Your task to perform on an android device: turn off data saver in the chrome app Image 0: 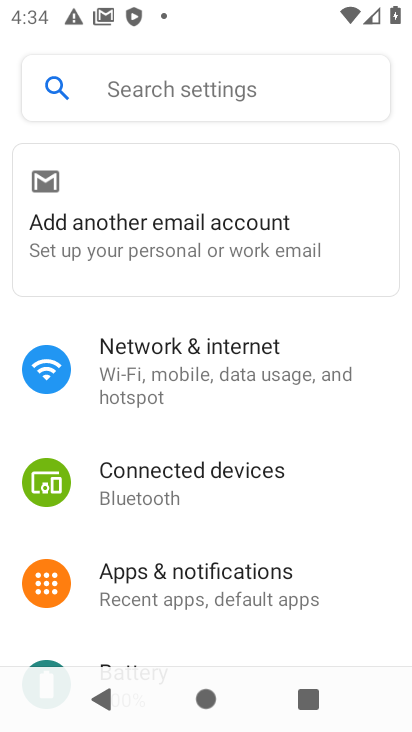
Step 0: press home button
Your task to perform on an android device: turn off data saver in the chrome app Image 1: 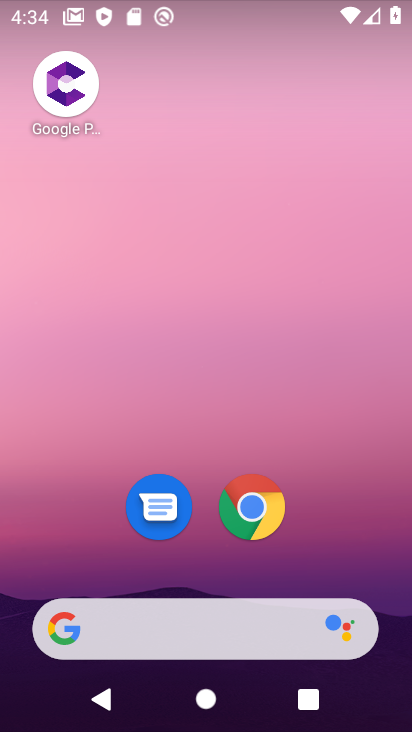
Step 1: click (256, 526)
Your task to perform on an android device: turn off data saver in the chrome app Image 2: 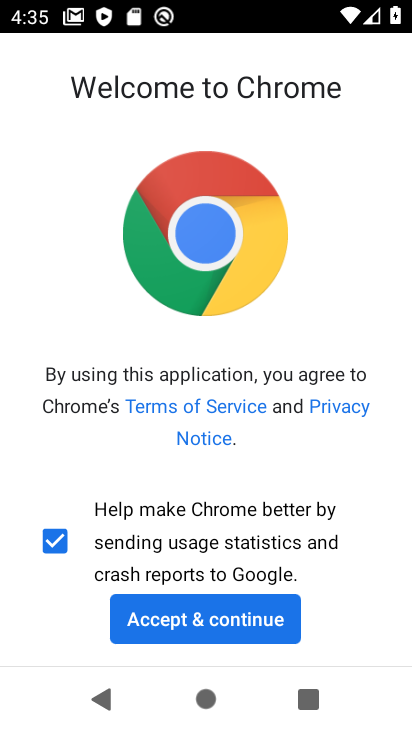
Step 2: click (197, 614)
Your task to perform on an android device: turn off data saver in the chrome app Image 3: 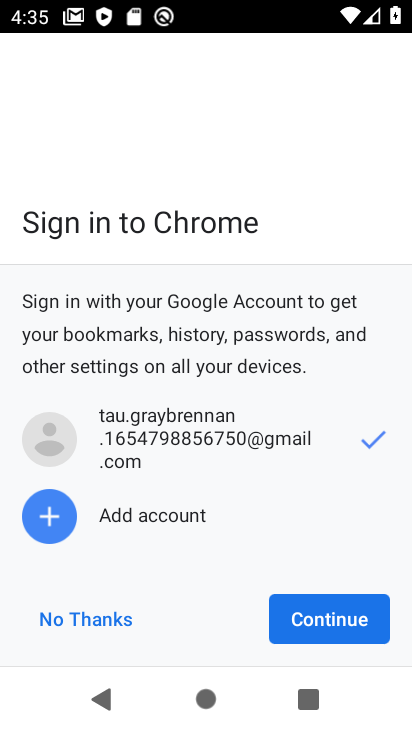
Step 3: click (323, 618)
Your task to perform on an android device: turn off data saver in the chrome app Image 4: 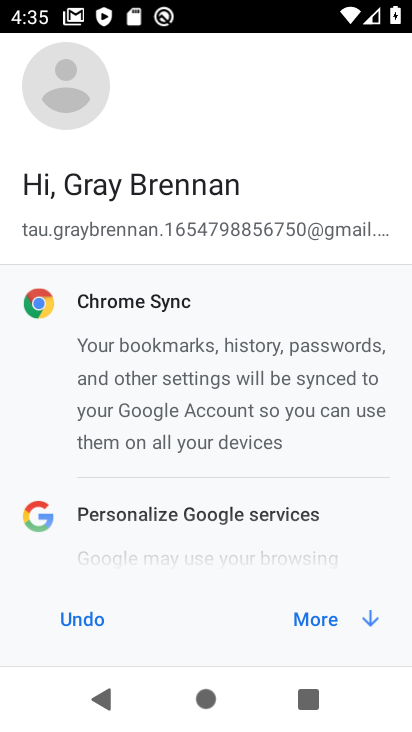
Step 4: click (323, 618)
Your task to perform on an android device: turn off data saver in the chrome app Image 5: 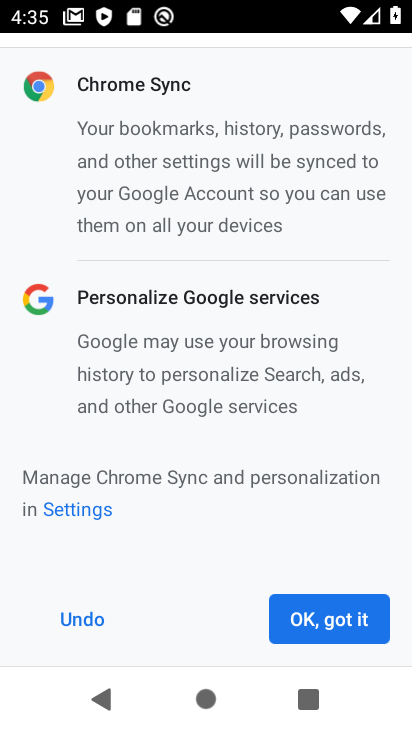
Step 5: click (323, 618)
Your task to perform on an android device: turn off data saver in the chrome app Image 6: 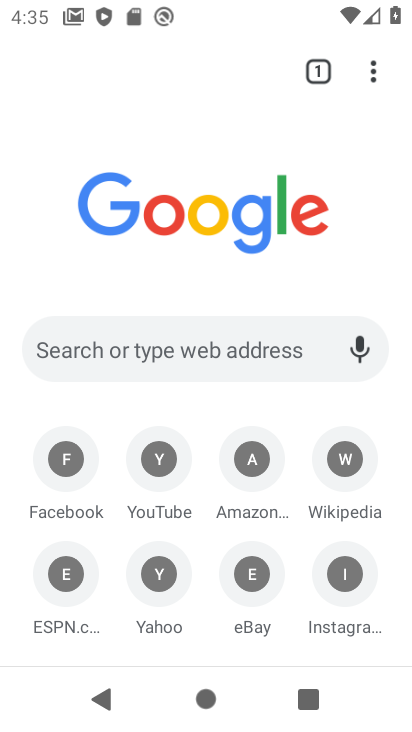
Step 6: click (375, 66)
Your task to perform on an android device: turn off data saver in the chrome app Image 7: 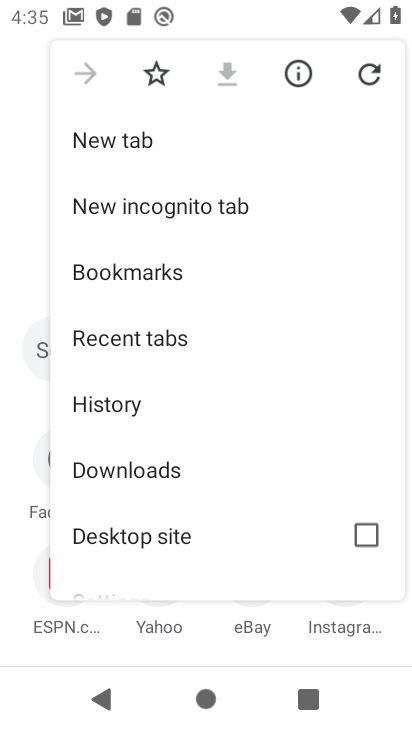
Step 7: drag from (169, 583) to (151, 308)
Your task to perform on an android device: turn off data saver in the chrome app Image 8: 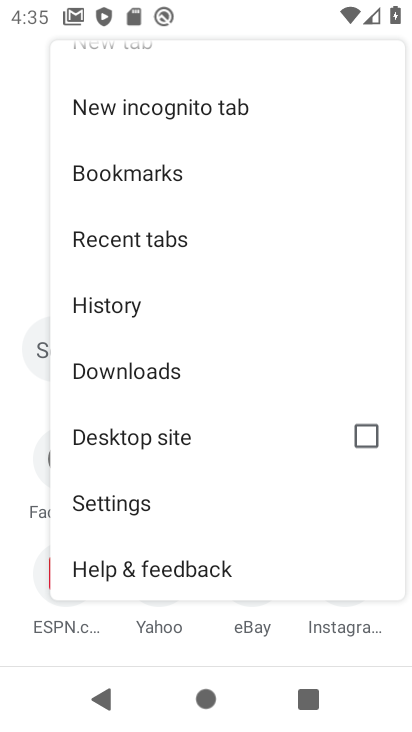
Step 8: click (166, 517)
Your task to perform on an android device: turn off data saver in the chrome app Image 9: 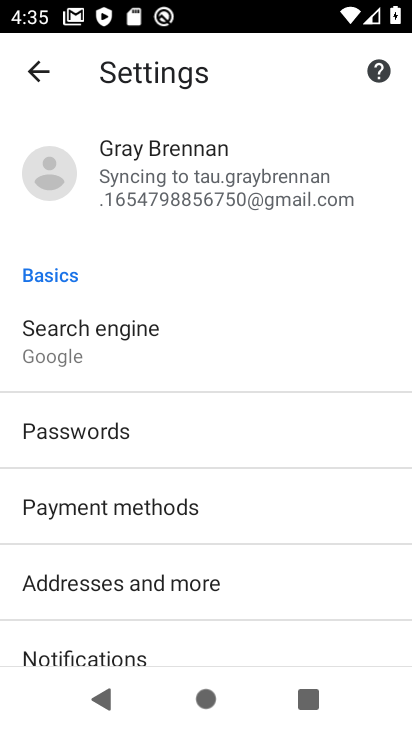
Step 9: drag from (116, 643) to (77, 410)
Your task to perform on an android device: turn off data saver in the chrome app Image 10: 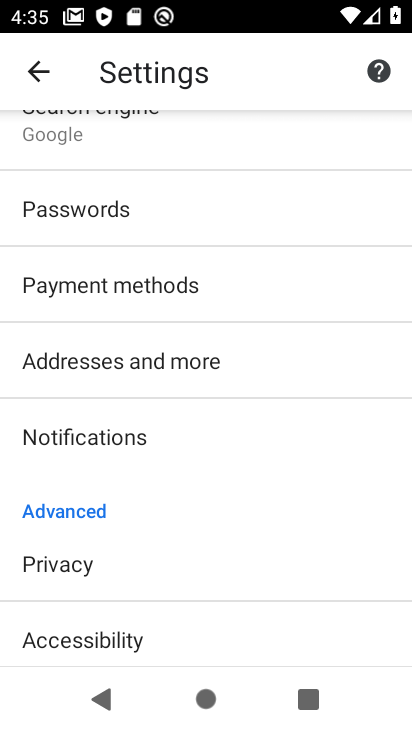
Step 10: drag from (116, 632) to (118, 297)
Your task to perform on an android device: turn off data saver in the chrome app Image 11: 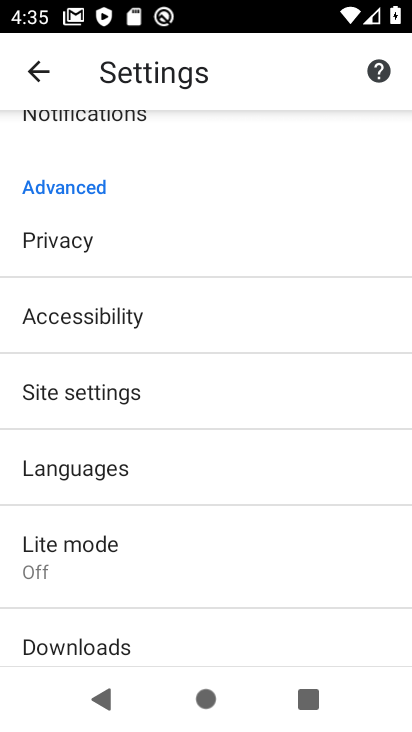
Step 11: click (99, 539)
Your task to perform on an android device: turn off data saver in the chrome app Image 12: 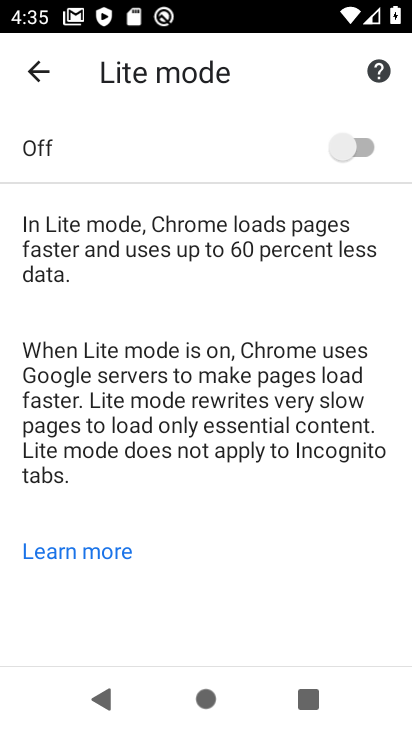
Step 12: task complete